Your task to perform on an android device: turn vacation reply on in the gmail app Image 0: 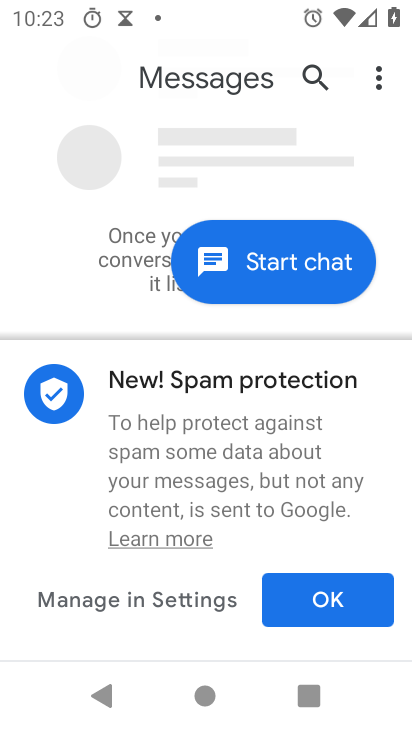
Step 0: press home button
Your task to perform on an android device: turn vacation reply on in the gmail app Image 1: 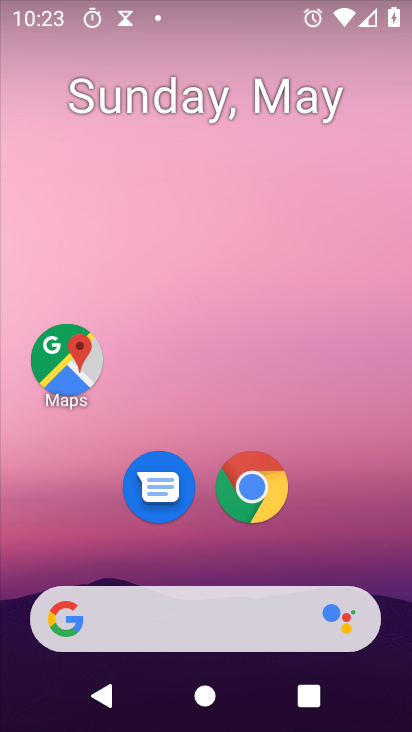
Step 1: drag from (318, 516) to (372, 16)
Your task to perform on an android device: turn vacation reply on in the gmail app Image 2: 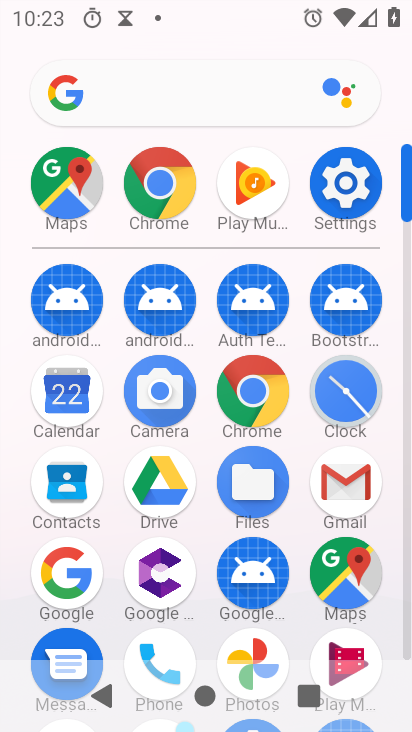
Step 2: click (359, 476)
Your task to perform on an android device: turn vacation reply on in the gmail app Image 3: 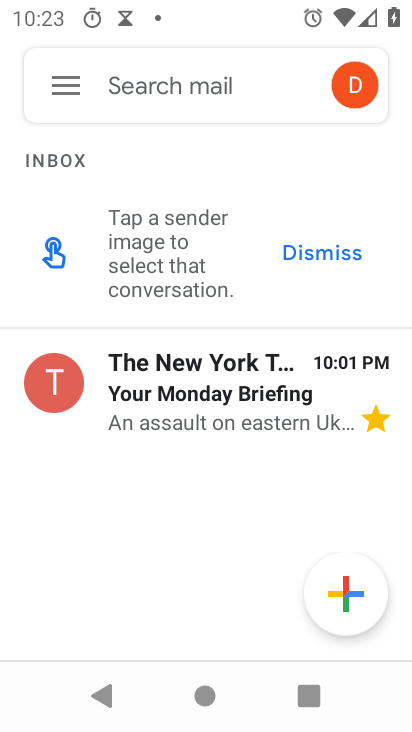
Step 3: click (54, 95)
Your task to perform on an android device: turn vacation reply on in the gmail app Image 4: 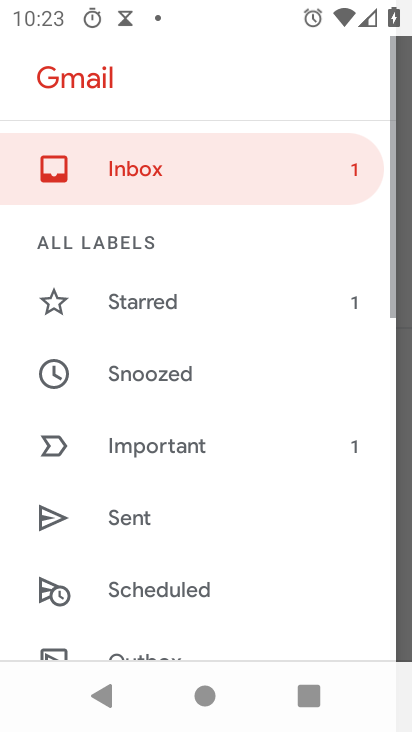
Step 4: drag from (102, 578) to (181, 177)
Your task to perform on an android device: turn vacation reply on in the gmail app Image 5: 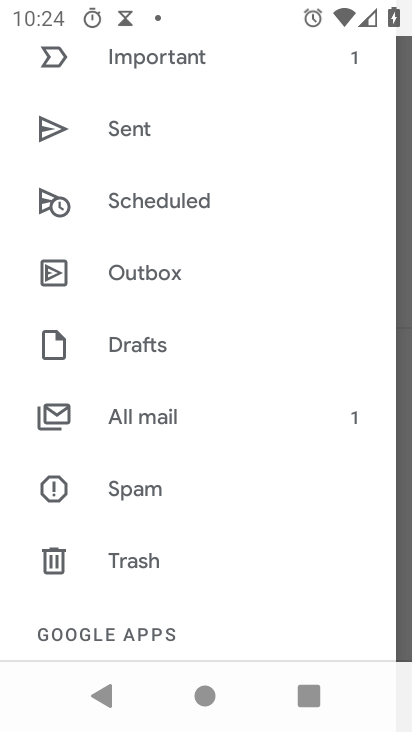
Step 5: drag from (136, 671) to (172, 245)
Your task to perform on an android device: turn vacation reply on in the gmail app Image 6: 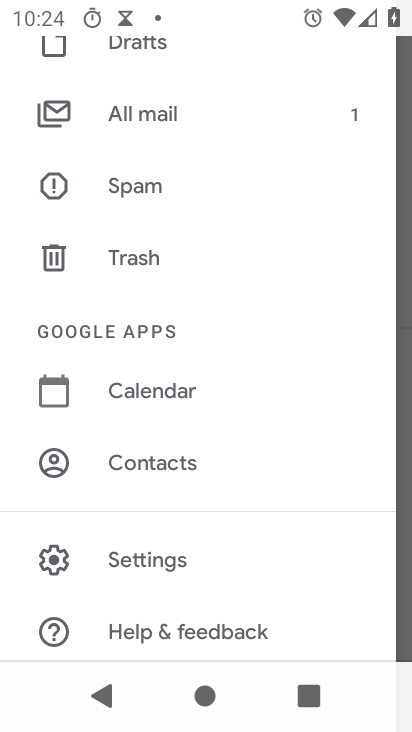
Step 6: click (139, 549)
Your task to perform on an android device: turn vacation reply on in the gmail app Image 7: 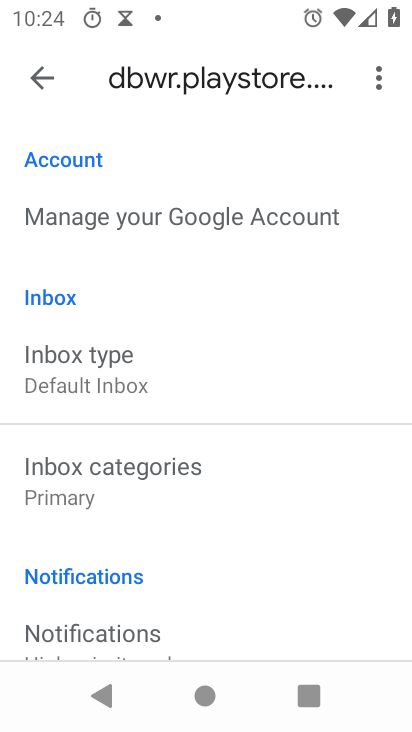
Step 7: drag from (182, 535) to (211, 173)
Your task to perform on an android device: turn vacation reply on in the gmail app Image 8: 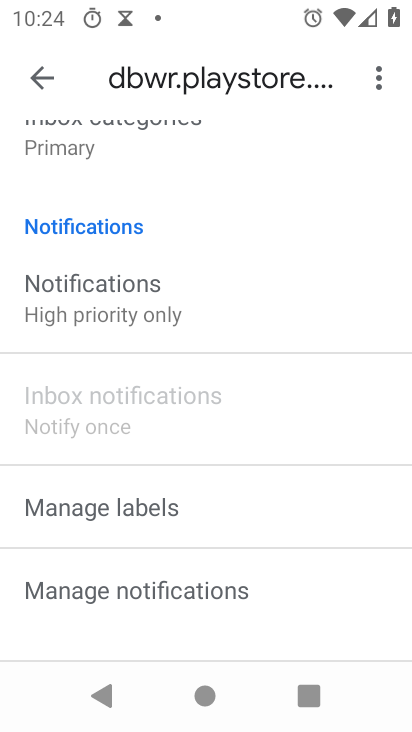
Step 8: drag from (132, 558) to (167, 137)
Your task to perform on an android device: turn vacation reply on in the gmail app Image 9: 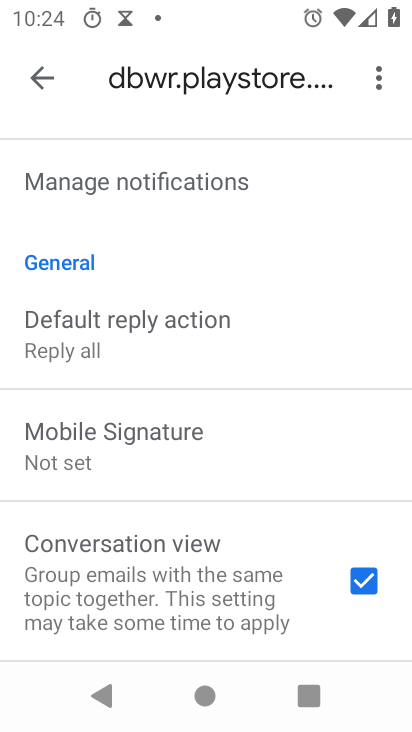
Step 9: drag from (130, 436) to (151, 153)
Your task to perform on an android device: turn vacation reply on in the gmail app Image 10: 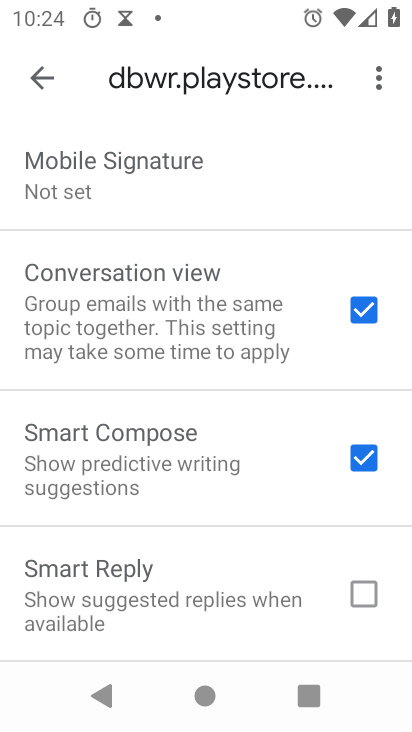
Step 10: drag from (120, 585) to (147, 204)
Your task to perform on an android device: turn vacation reply on in the gmail app Image 11: 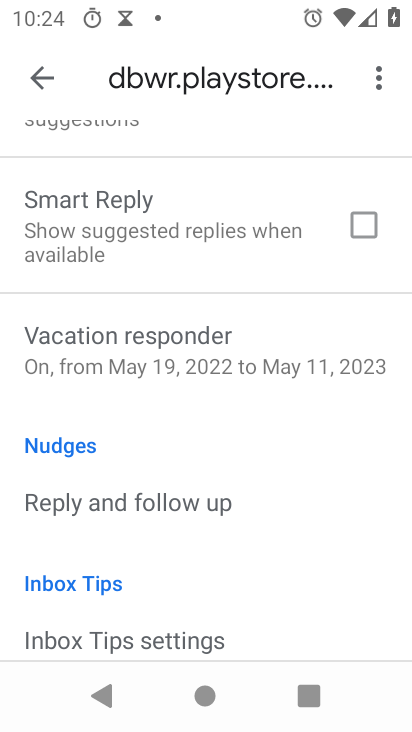
Step 11: click (120, 371)
Your task to perform on an android device: turn vacation reply on in the gmail app Image 12: 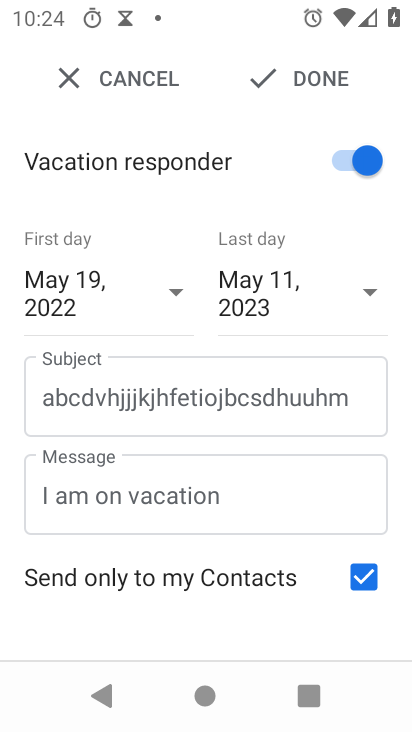
Step 12: task complete